Your task to perform on an android device: empty trash in the gmail app Image 0: 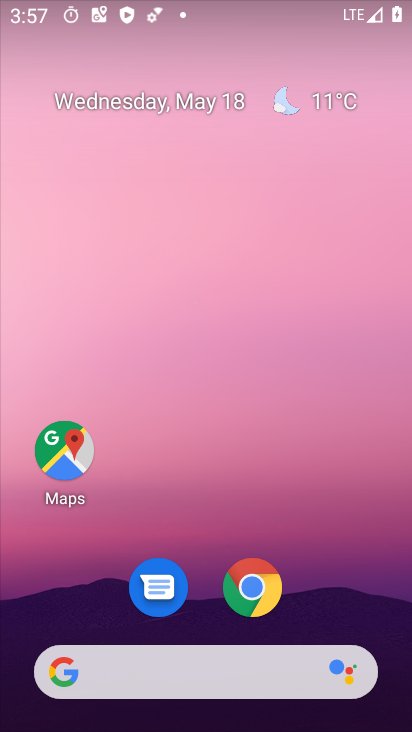
Step 0: drag from (211, 682) to (304, 29)
Your task to perform on an android device: empty trash in the gmail app Image 1: 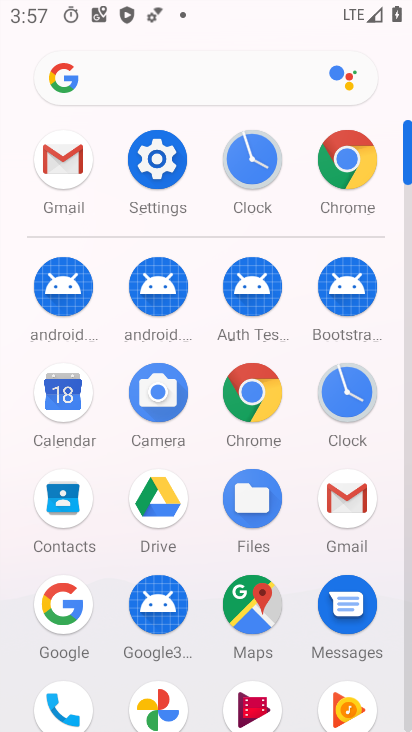
Step 1: click (343, 520)
Your task to perform on an android device: empty trash in the gmail app Image 2: 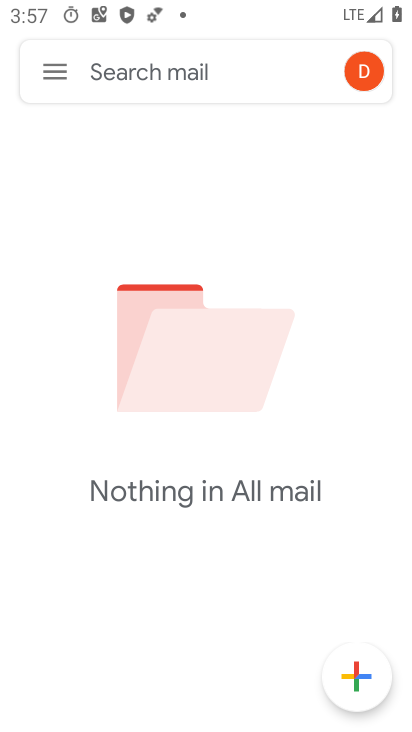
Step 2: click (48, 77)
Your task to perform on an android device: empty trash in the gmail app Image 3: 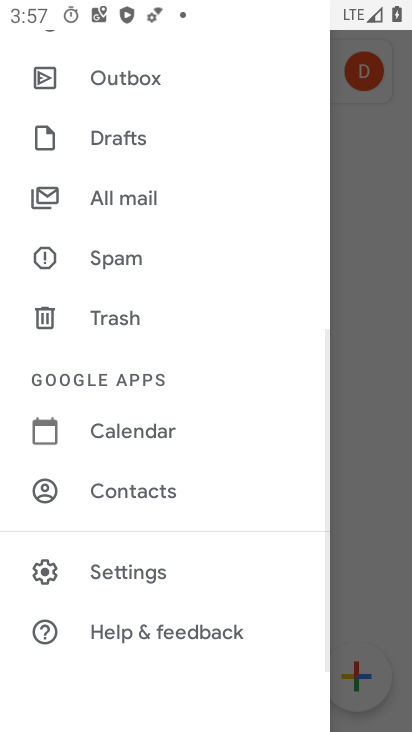
Step 3: click (154, 334)
Your task to perform on an android device: empty trash in the gmail app Image 4: 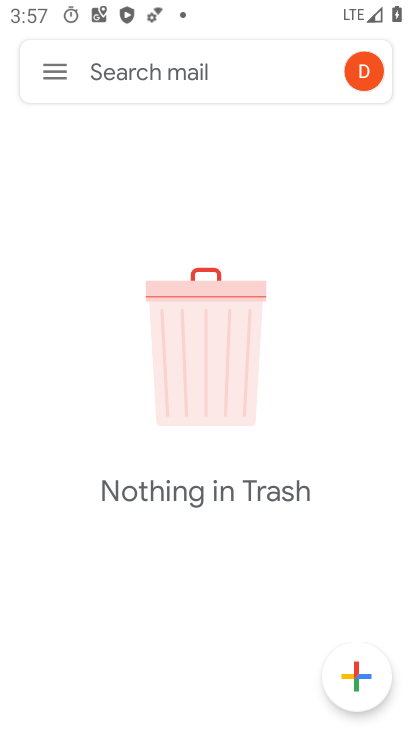
Step 4: task complete